Your task to perform on an android device: change the clock style Image 0: 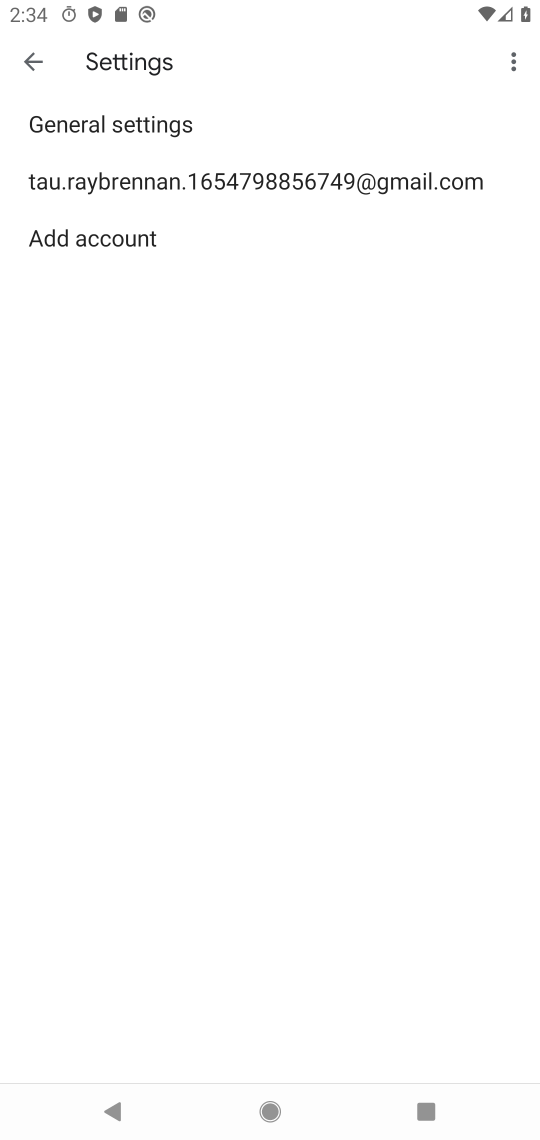
Step 0: press home button
Your task to perform on an android device: change the clock style Image 1: 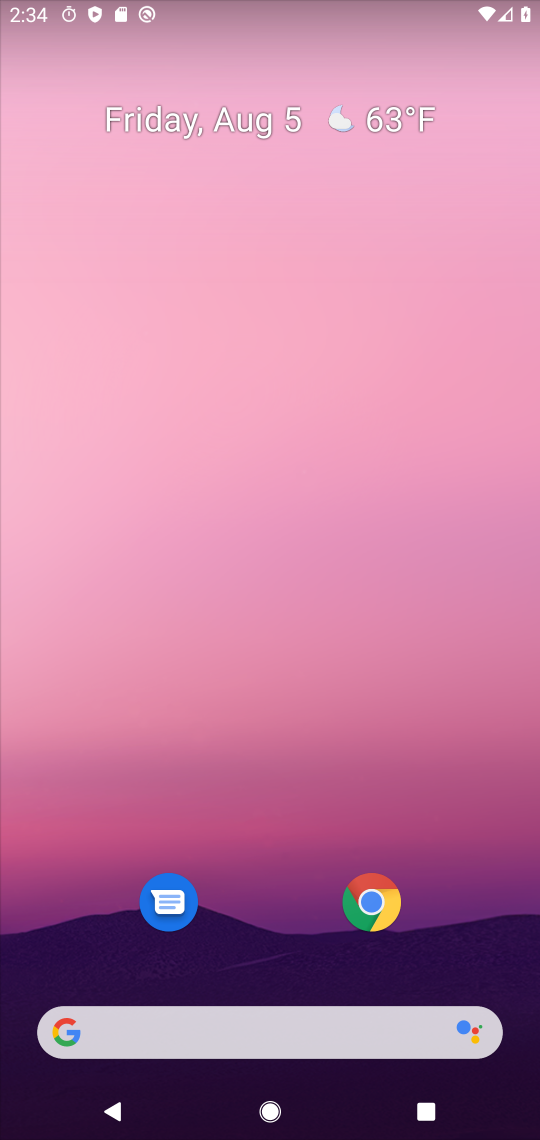
Step 1: drag from (365, 1045) to (325, 294)
Your task to perform on an android device: change the clock style Image 2: 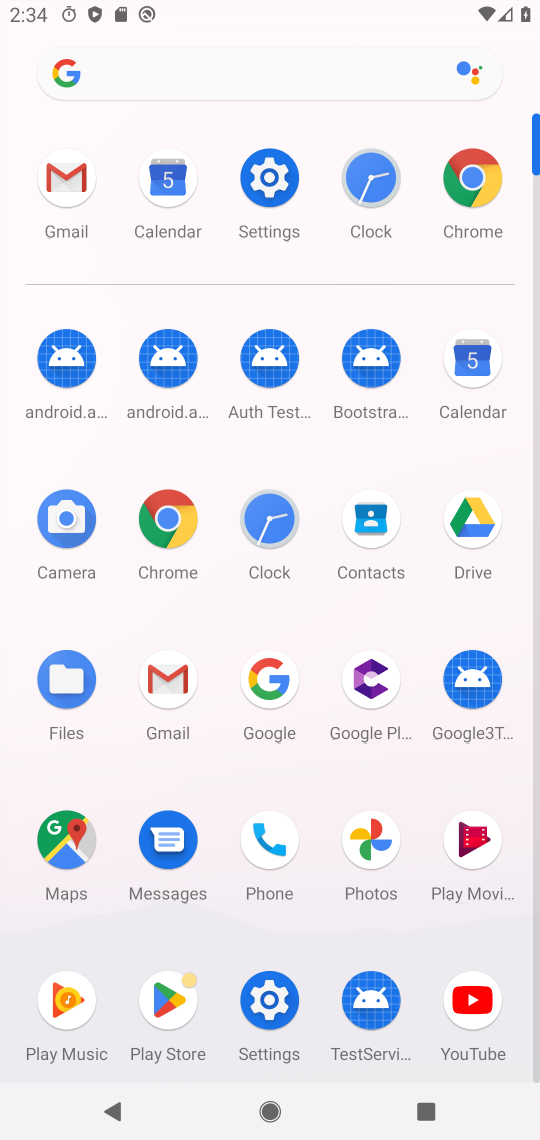
Step 2: click (272, 532)
Your task to perform on an android device: change the clock style Image 3: 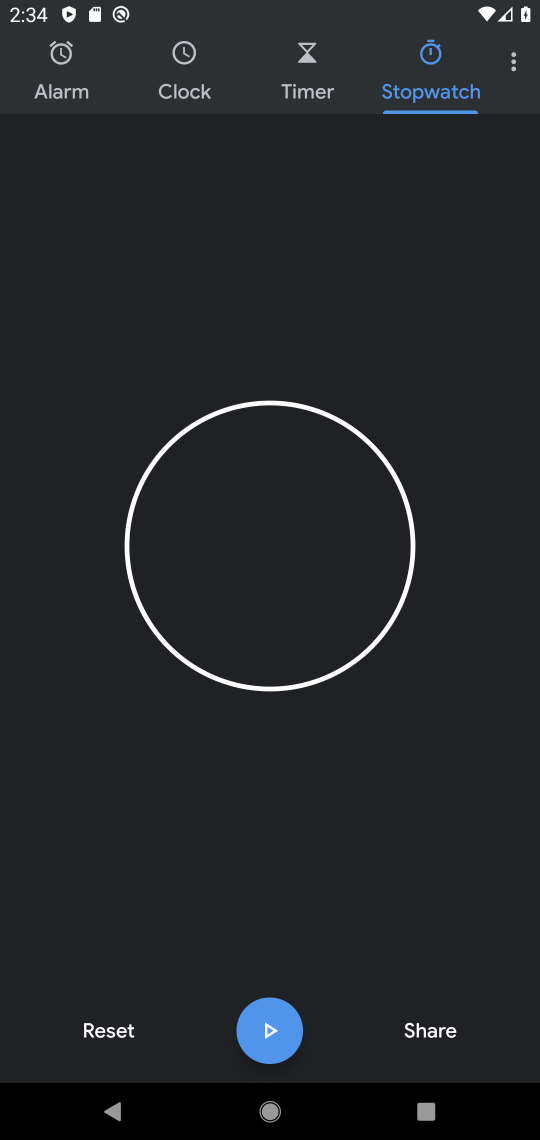
Step 3: click (502, 76)
Your task to perform on an android device: change the clock style Image 4: 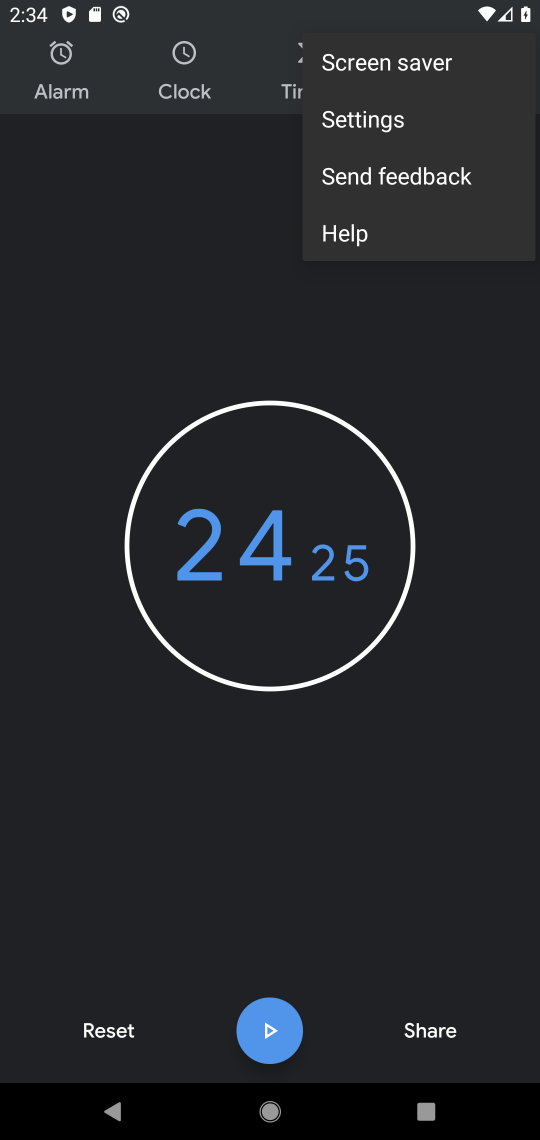
Step 4: click (369, 135)
Your task to perform on an android device: change the clock style Image 5: 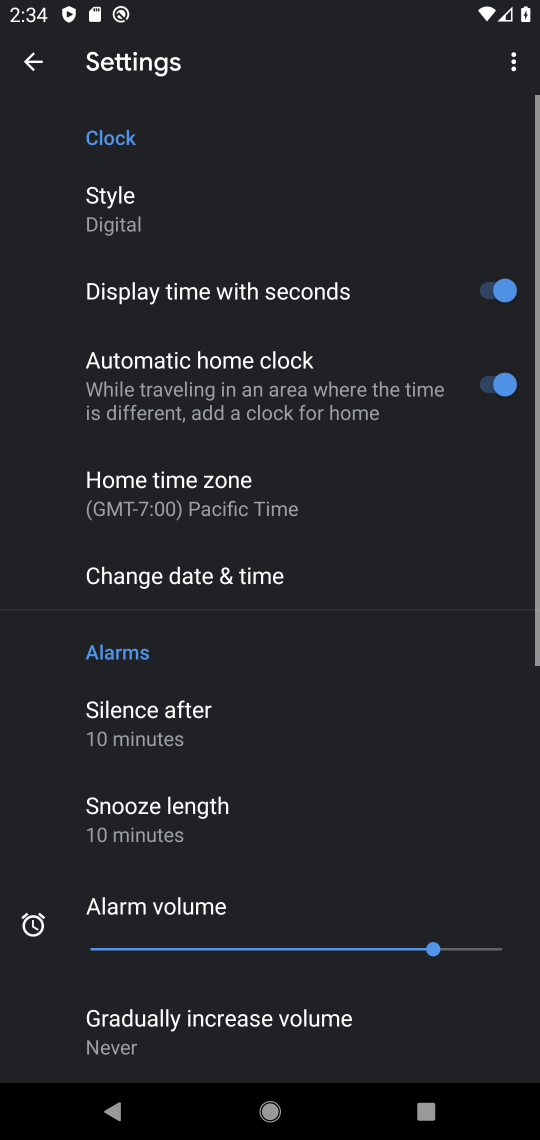
Step 5: click (130, 214)
Your task to perform on an android device: change the clock style Image 6: 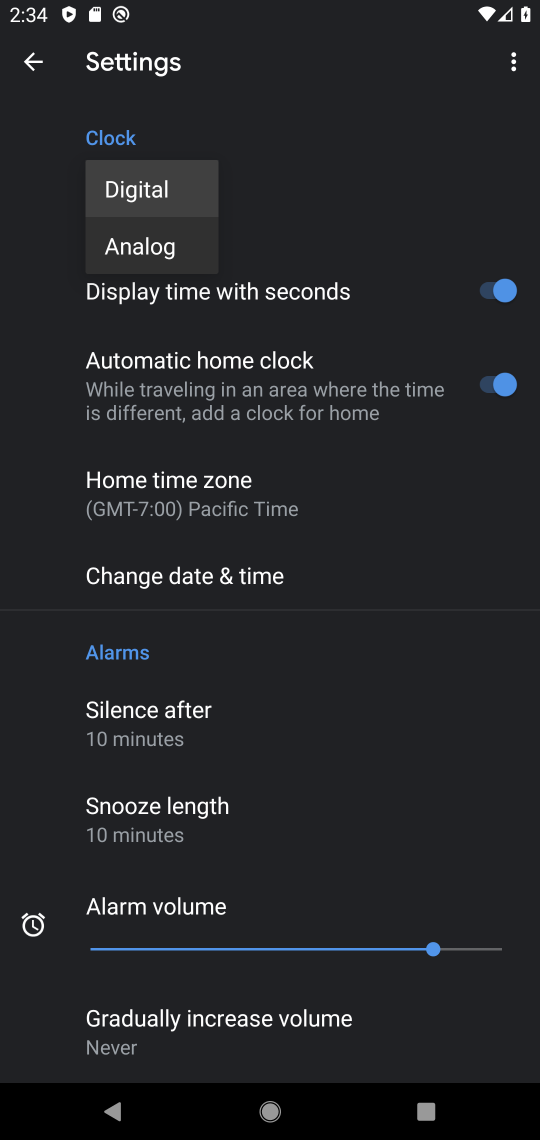
Step 6: click (132, 248)
Your task to perform on an android device: change the clock style Image 7: 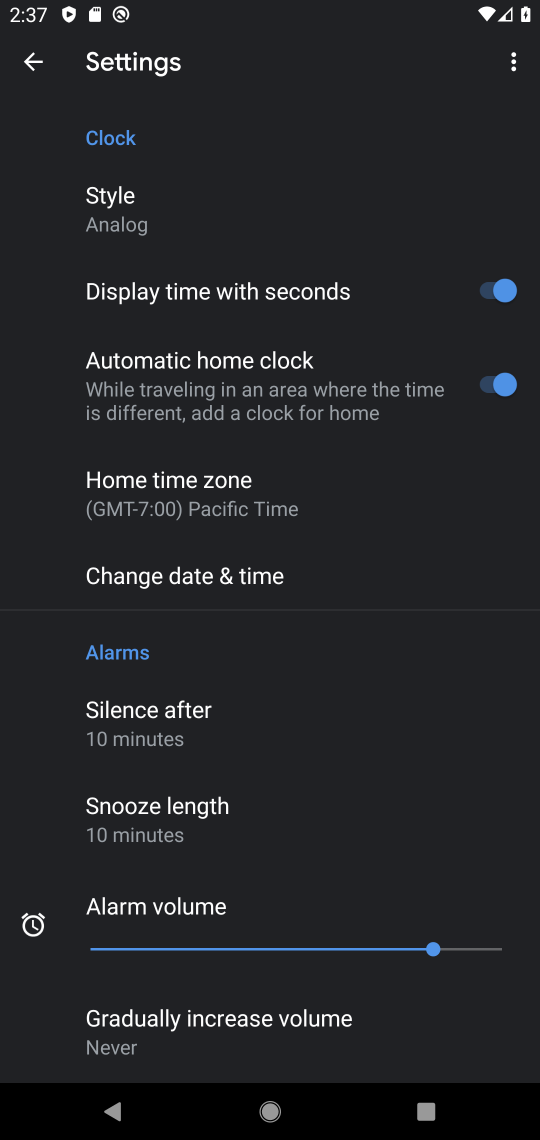
Step 7: task complete